Your task to perform on an android device: Show me recent news Image 0: 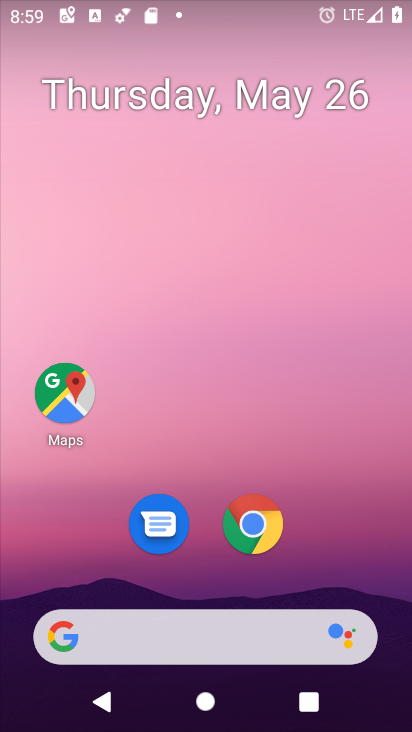
Step 0: click (267, 631)
Your task to perform on an android device: Show me recent news Image 1: 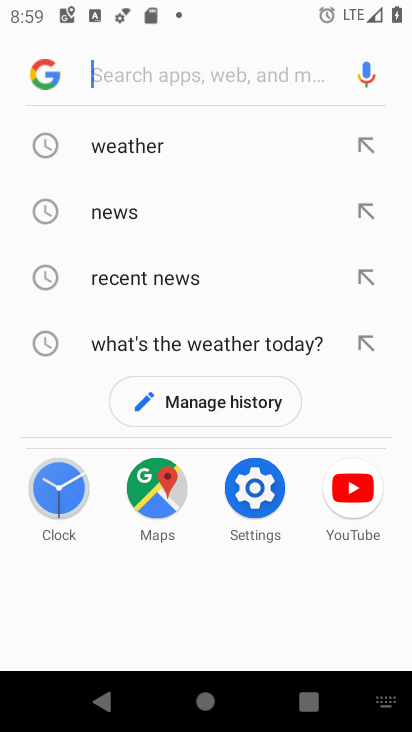
Step 1: click (60, 270)
Your task to perform on an android device: Show me recent news Image 2: 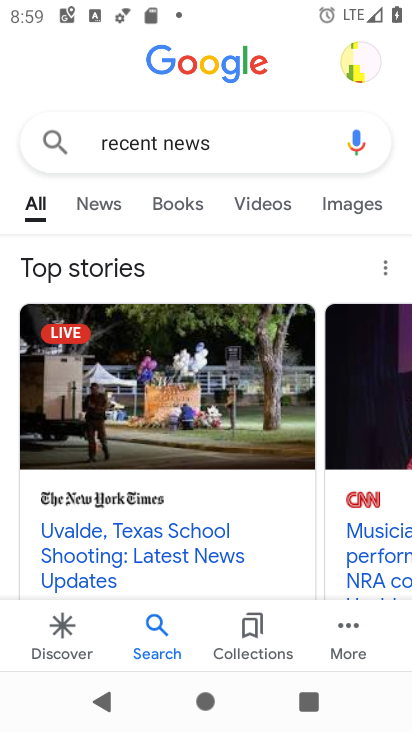
Step 2: drag from (265, 427) to (267, 185)
Your task to perform on an android device: Show me recent news Image 3: 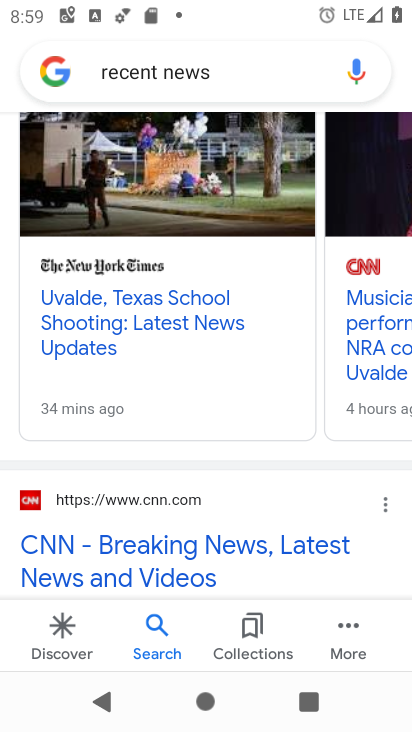
Step 3: click (235, 310)
Your task to perform on an android device: Show me recent news Image 4: 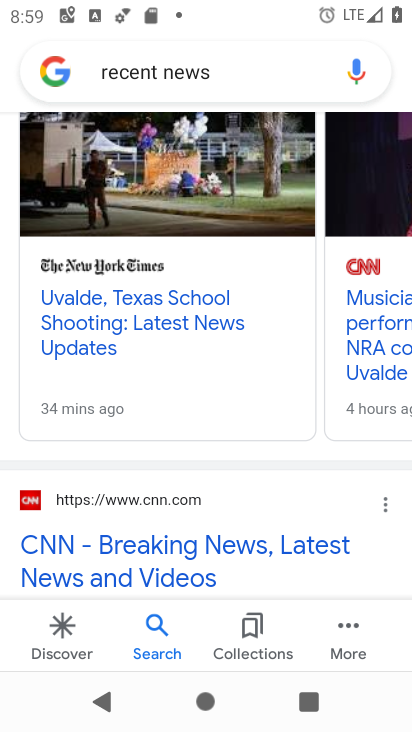
Step 4: task complete